Your task to perform on an android device: Turn on the flashlight Image 0: 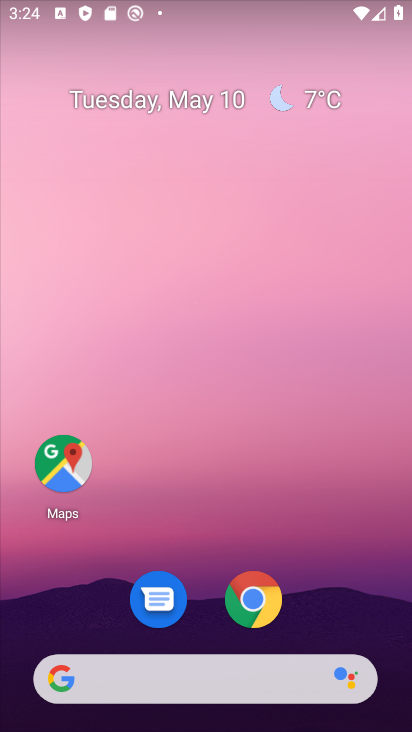
Step 0: drag from (236, 32) to (162, 443)
Your task to perform on an android device: Turn on the flashlight Image 1: 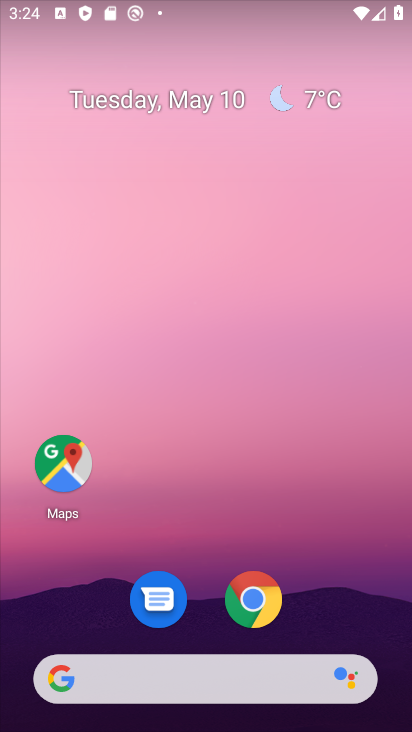
Step 1: task complete